Your task to perform on an android device: open a bookmark in the chrome app Image 0: 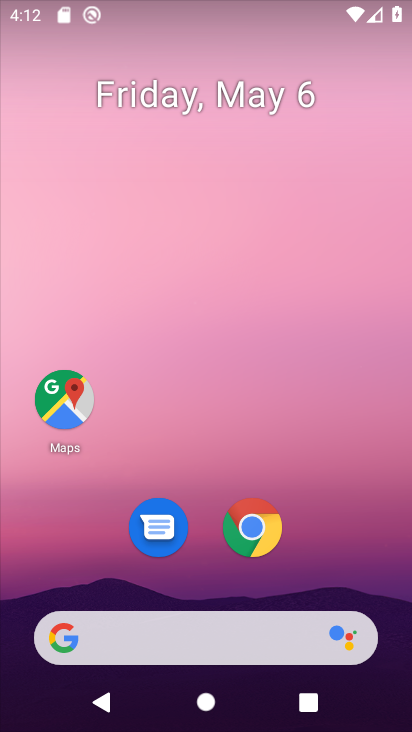
Step 0: click (262, 539)
Your task to perform on an android device: open a bookmark in the chrome app Image 1: 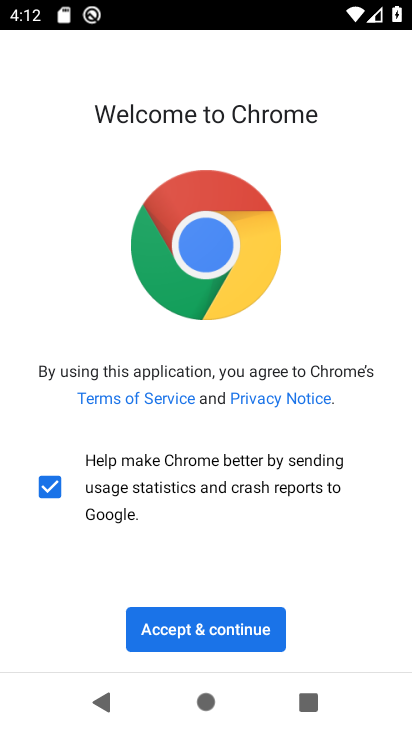
Step 1: click (272, 619)
Your task to perform on an android device: open a bookmark in the chrome app Image 2: 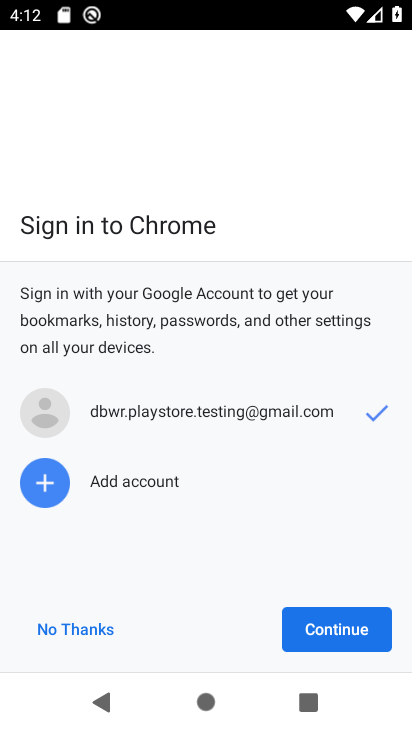
Step 2: click (333, 636)
Your task to perform on an android device: open a bookmark in the chrome app Image 3: 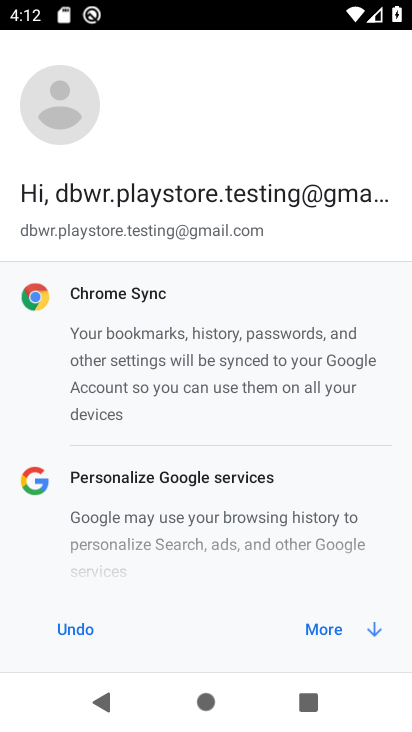
Step 3: click (333, 636)
Your task to perform on an android device: open a bookmark in the chrome app Image 4: 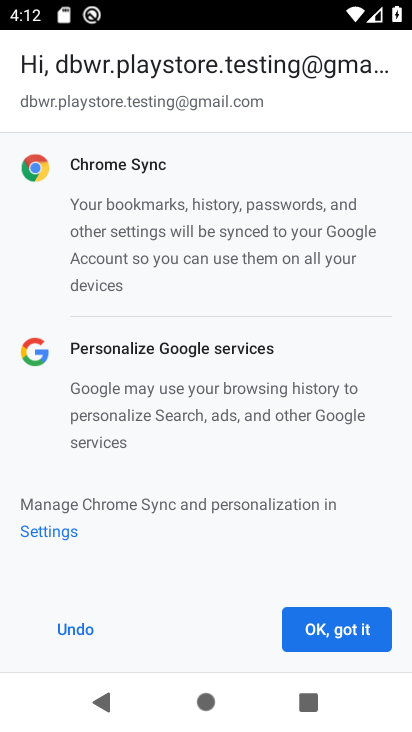
Step 4: click (333, 636)
Your task to perform on an android device: open a bookmark in the chrome app Image 5: 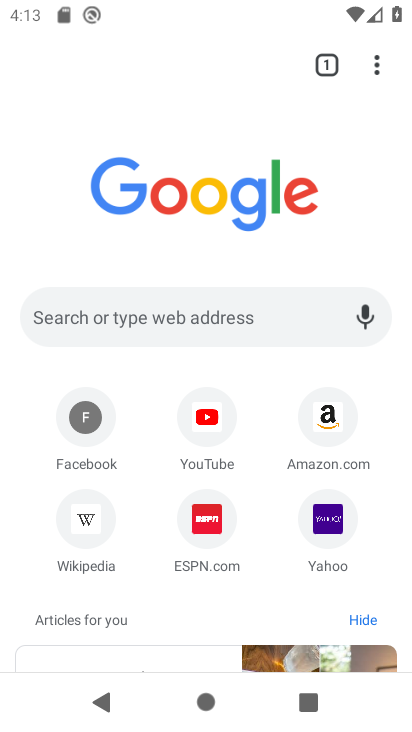
Step 5: click (379, 67)
Your task to perform on an android device: open a bookmark in the chrome app Image 6: 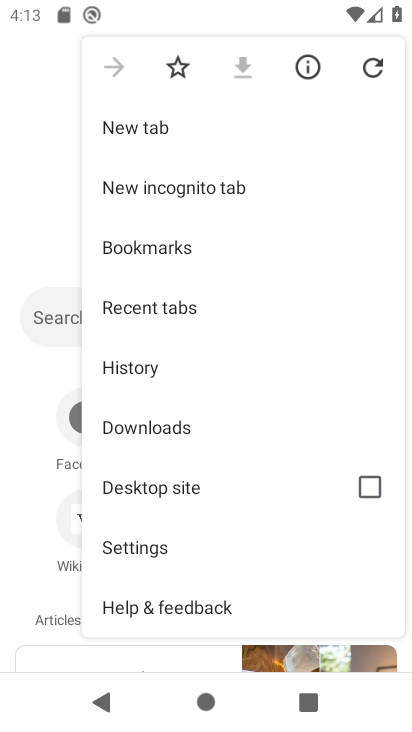
Step 6: click (379, 67)
Your task to perform on an android device: open a bookmark in the chrome app Image 7: 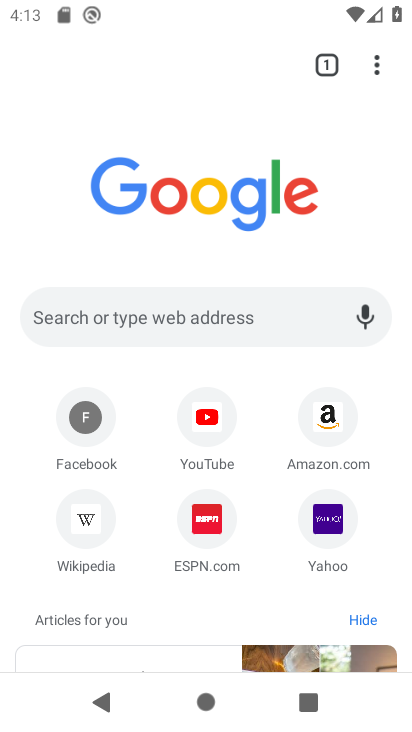
Step 7: click (364, 67)
Your task to perform on an android device: open a bookmark in the chrome app Image 8: 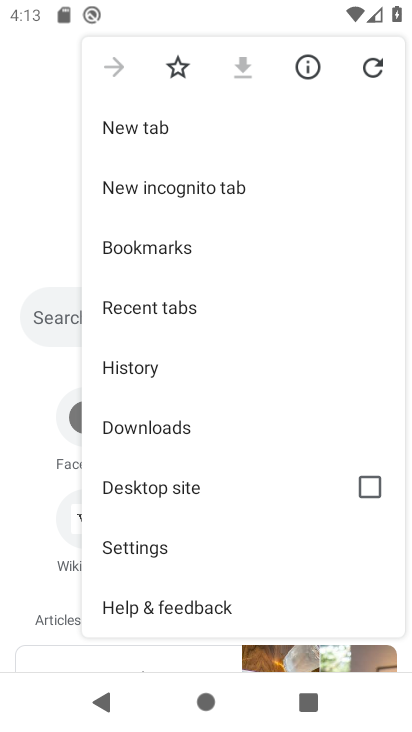
Step 8: click (155, 252)
Your task to perform on an android device: open a bookmark in the chrome app Image 9: 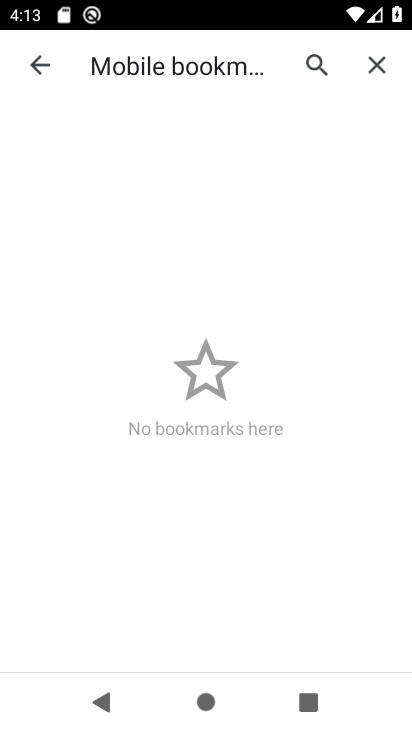
Step 9: task complete